Your task to perform on an android device: Open Google Image 0: 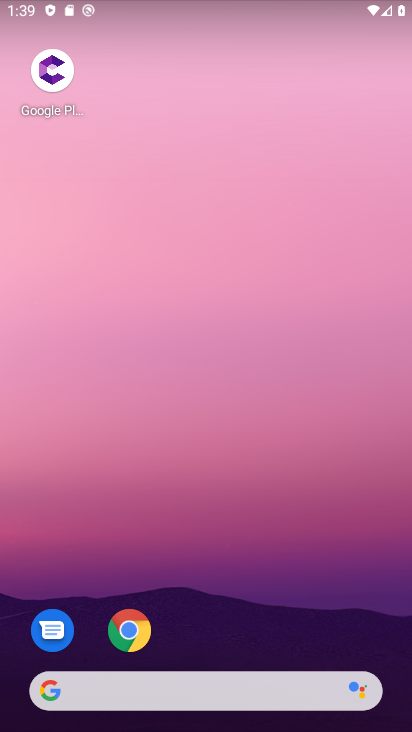
Step 0: drag from (211, 653) to (178, 159)
Your task to perform on an android device: Open Google Image 1: 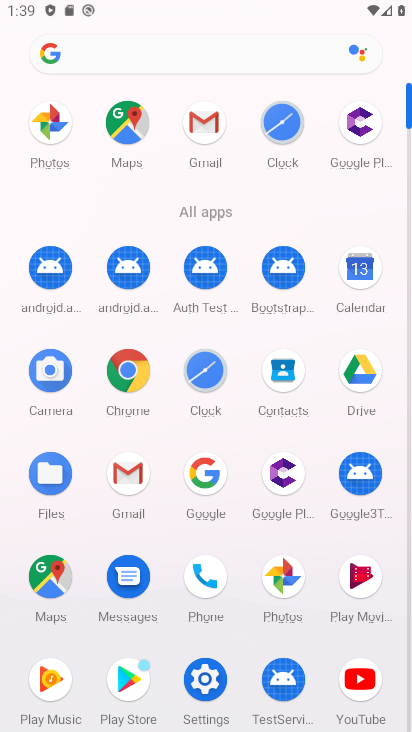
Step 1: click (192, 451)
Your task to perform on an android device: Open Google Image 2: 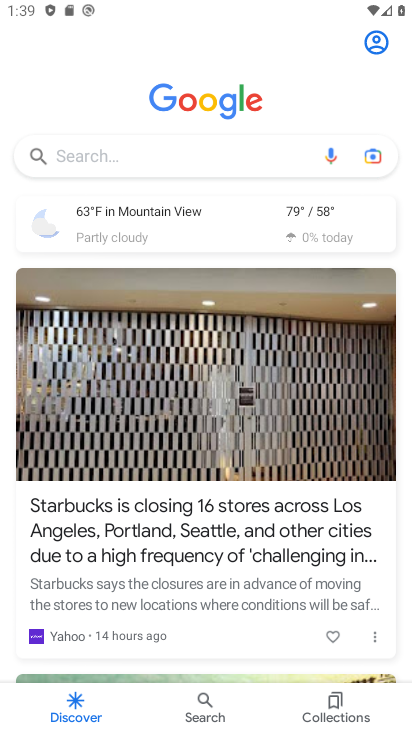
Step 2: task complete